Your task to perform on an android device: Go to Amazon Image 0: 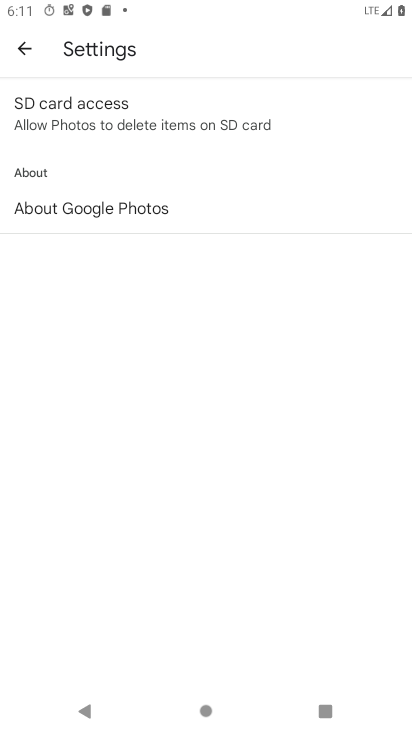
Step 0: press home button
Your task to perform on an android device: Go to Amazon Image 1: 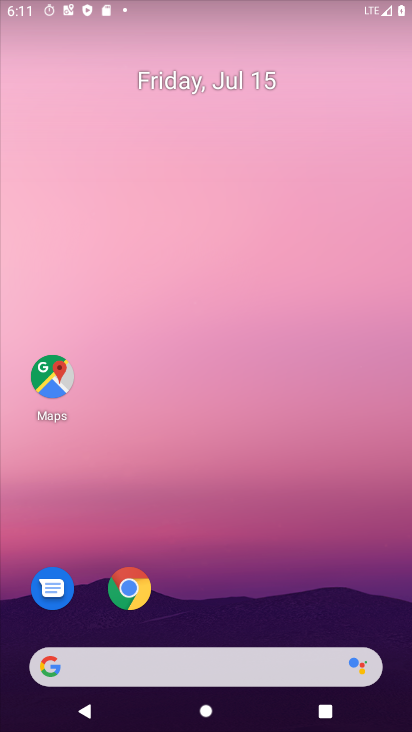
Step 1: drag from (252, 665) to (316, 12)
Your task to perform on an android device: Go to Amazon Image 2: 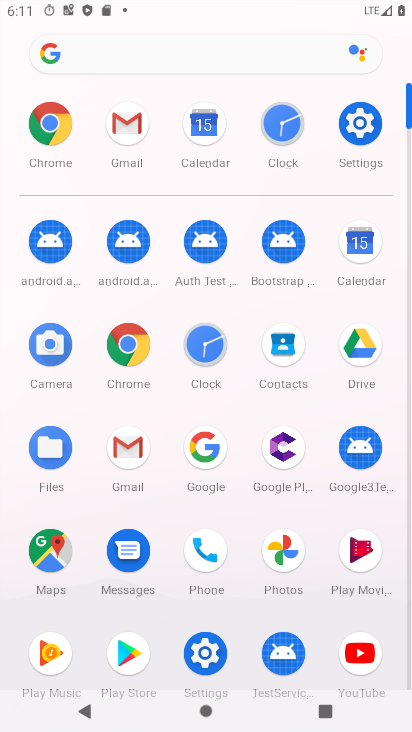
Step 2: click (125, 350)
Your task to perform on an android device: Go to Amazon Image 3: 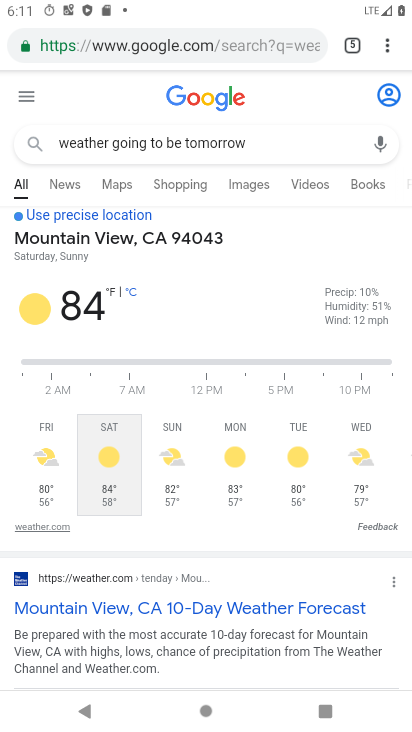
Step 3: click (381, 38)
Your task to perform on an android device: Go to Amazon Image 4: 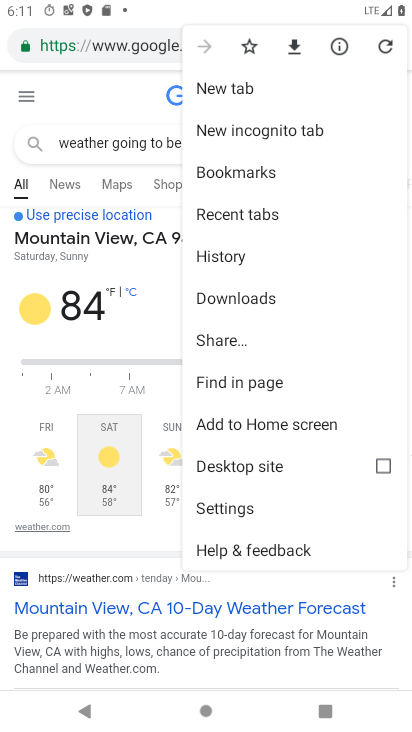
Step 4: click (307, 90)
Your task to perform on an android device: Go to Amazon Image 5: 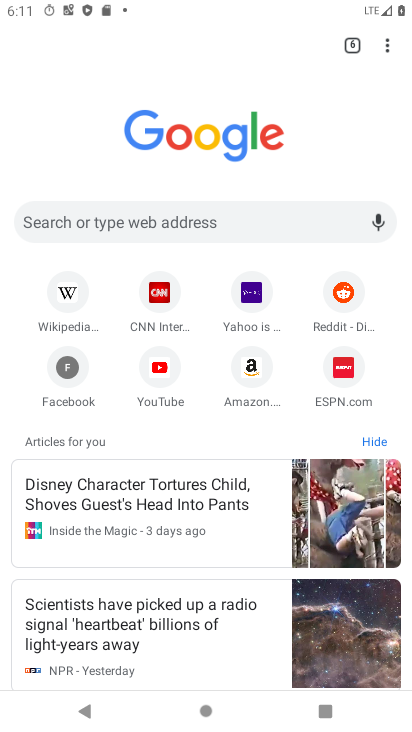
Step 5: click (262, 370)
Your task to perform on an android device: Go to Amazon Image 6: 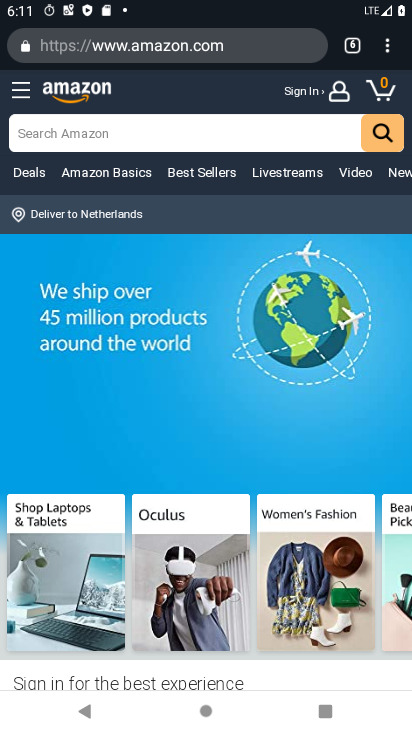
Step 6: task complete